Your task to perform on an android device: find which apps use the phone's location Image 0: 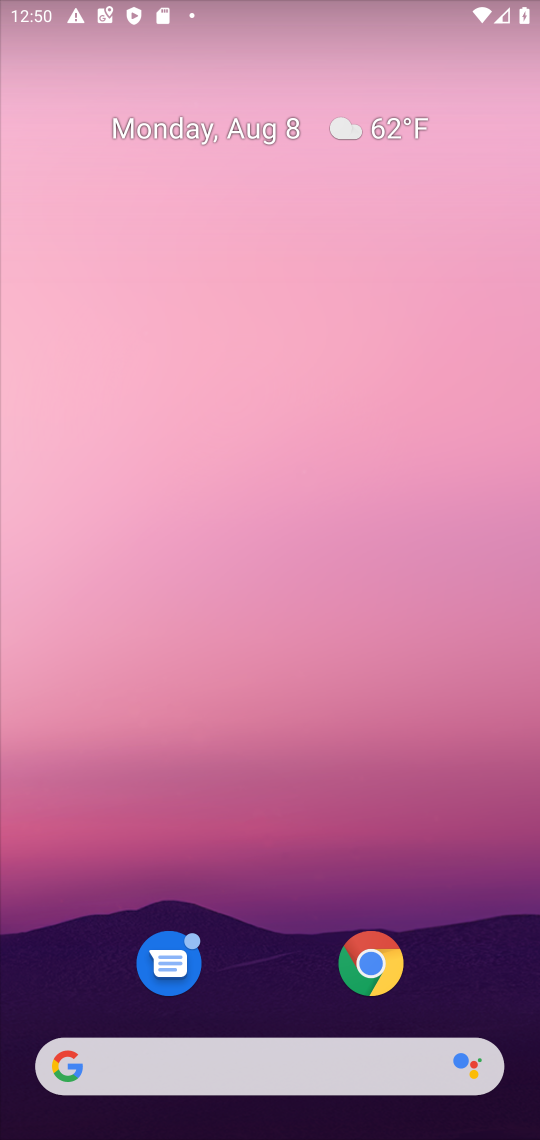
Step 0: drag from (499, 983) to (275, 26)
Your task to perform on an android device: find which apps use the phone's location Image 1: 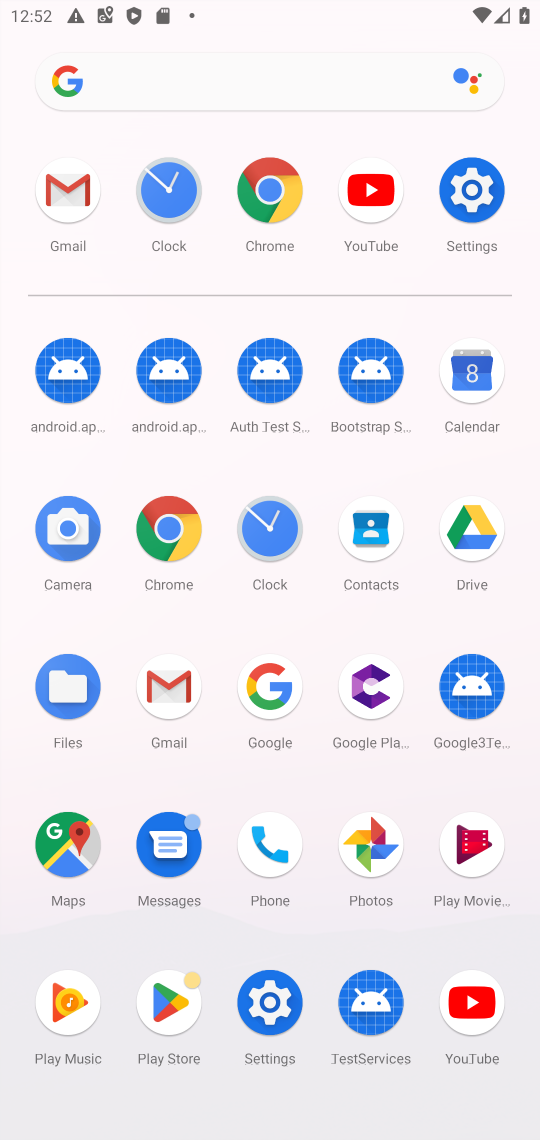
Step 1: click (288, 997)
Your task to perform on an android device: find which apps use the phone's location Image 2: 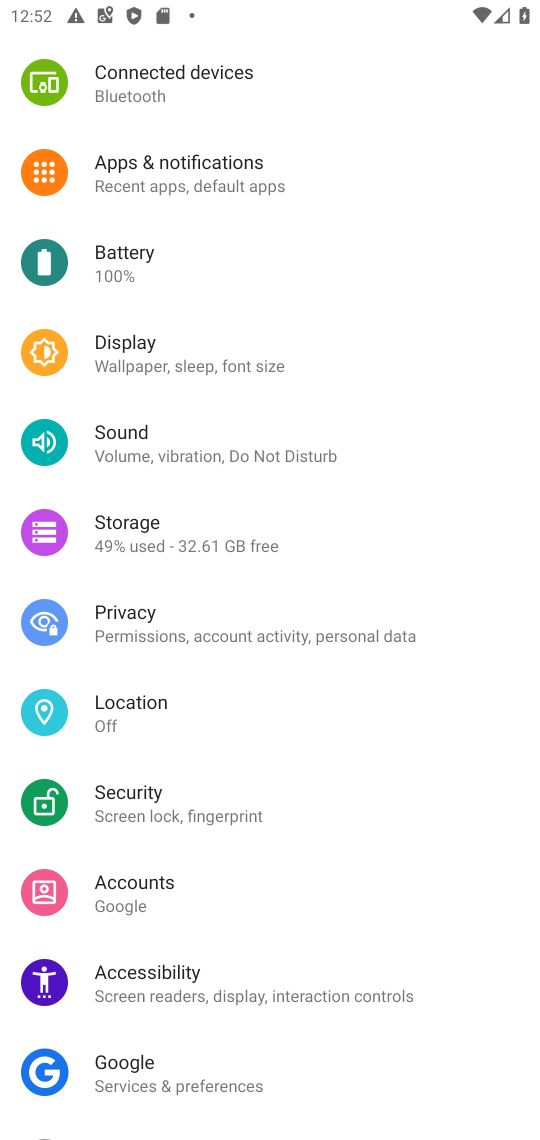
Step 2: click (165, 718)
Your task to perform on an android device: find which apps use the phone's location Image 3: 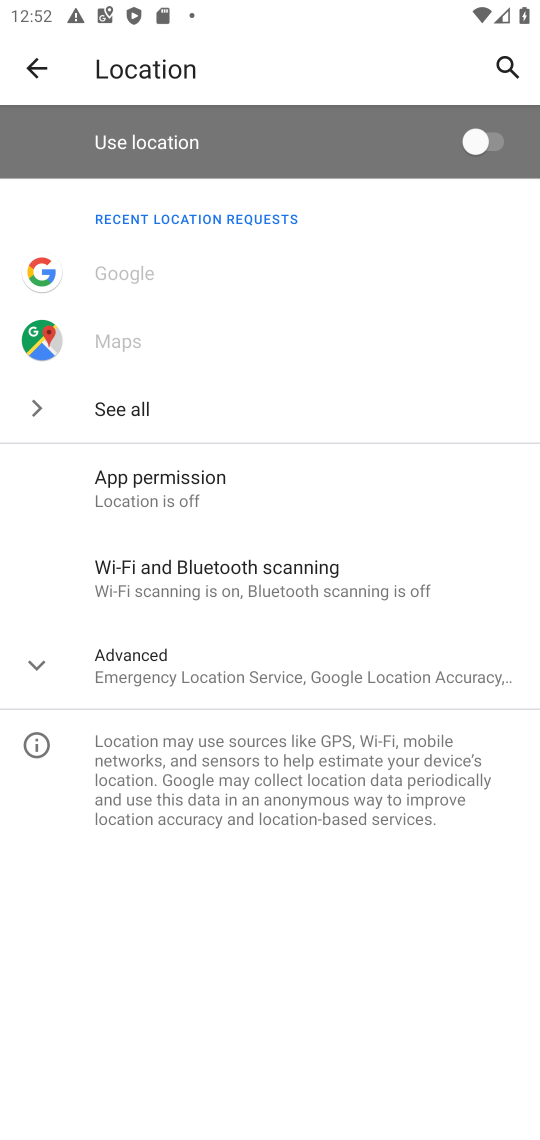
Step 3: click (159, 502)
Your task to perform on an android device: find which apps use the phone's location Image 4: 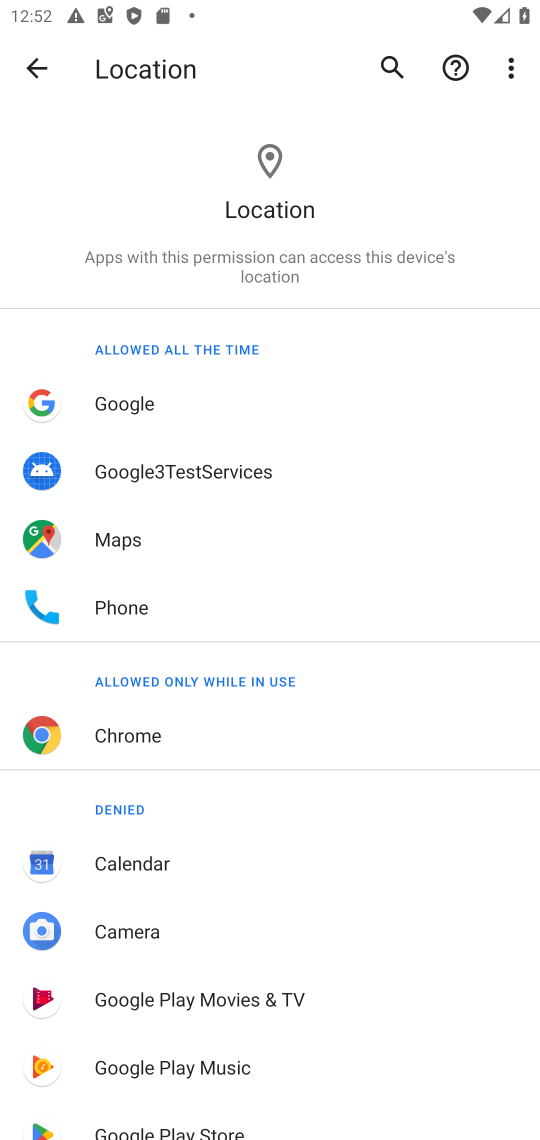
Step 4: click (145, 604)
Your task to perform on an android device: find which apps use the phone's location Image 5: 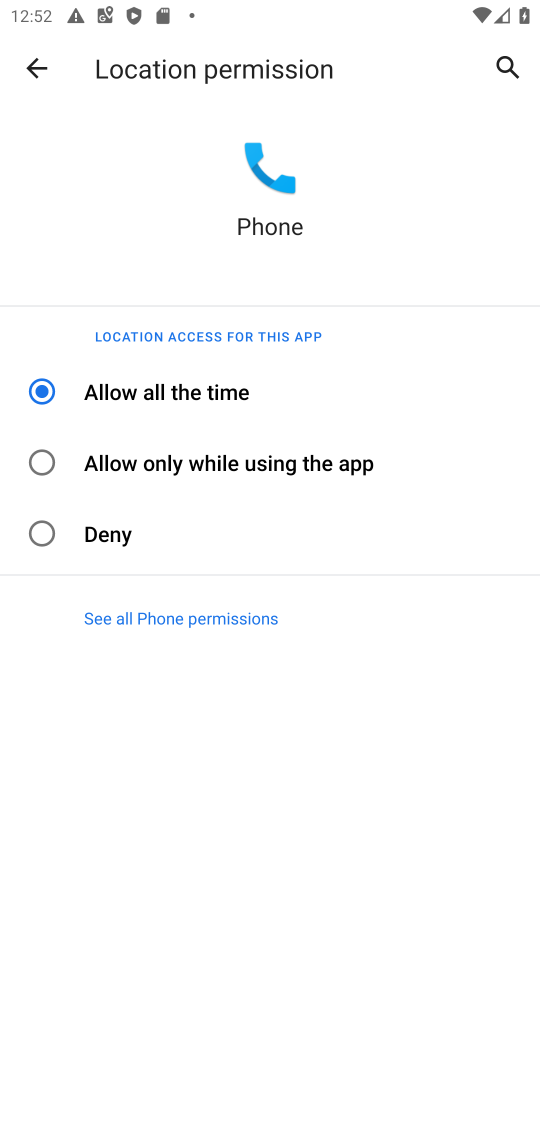
Step 5: task complete